Your task to perform on an android device: toggle wifi Image 0: 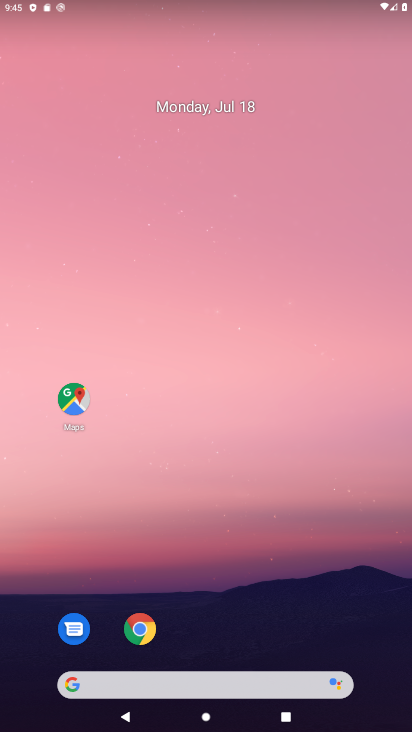
Step 0: drag from (202, 686) to (186, 4)
Your task to perform on an android device: toggle wifi Image 1: 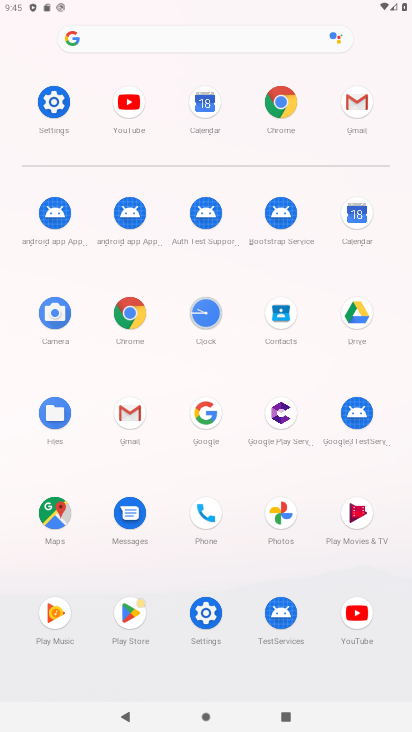
Step 1: click (53, 104)
Your task to perform on an android device: toggle wifi Image 2: 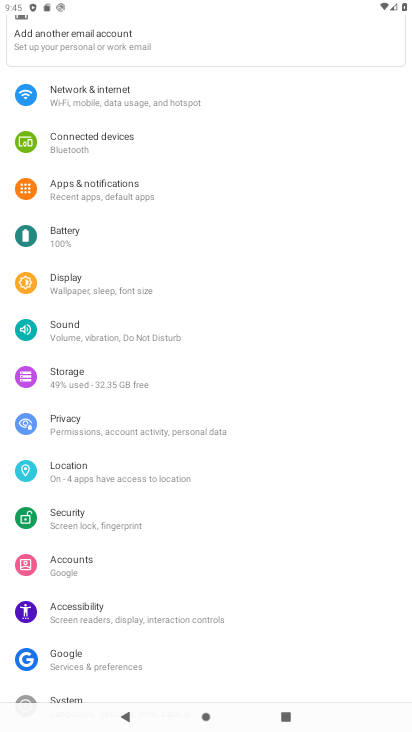
Step 2: click (121, 104)
Your task to perform on an android device: toggle wifi Image 3: 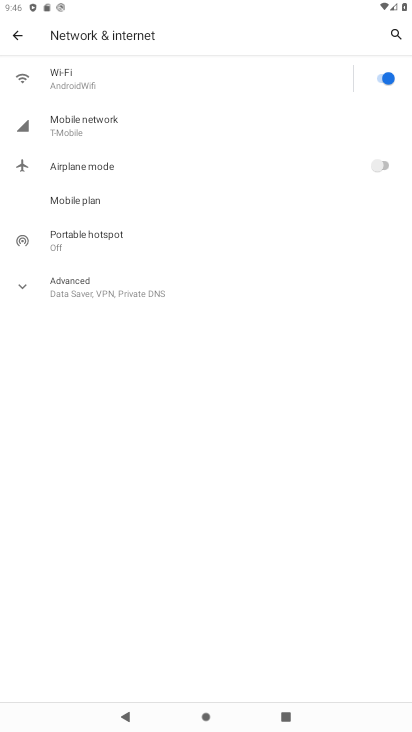
Step 3: click (381, 82)
Your task to perform on an android device: toggle wifi Image 4: 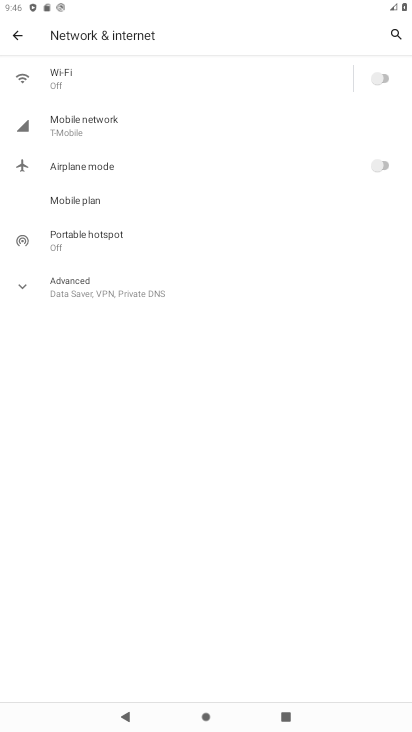
Step 4: task complete